Your task to perform on an android device: Go to sound settings Image 0: 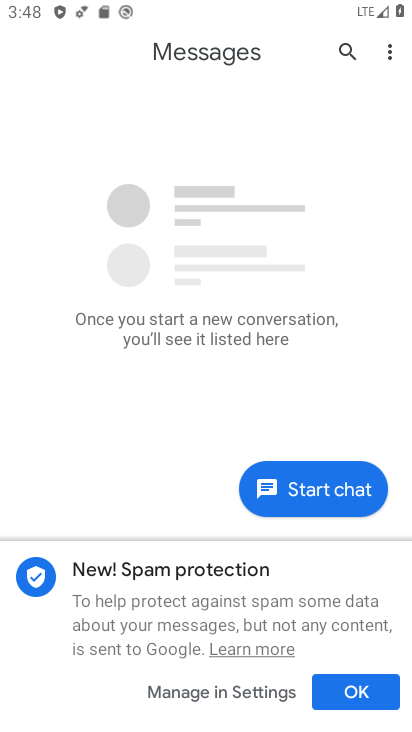
Step 0: press home button
Your task to perform on an android device: Go to sound settings Image 1: 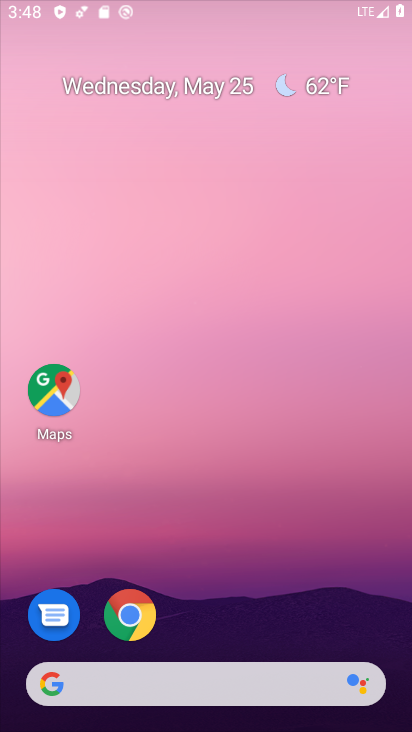
Step 1: drag from (275, 410) to (190, 1)
Your task to perform on an android device: Go to sound settings Image 2: 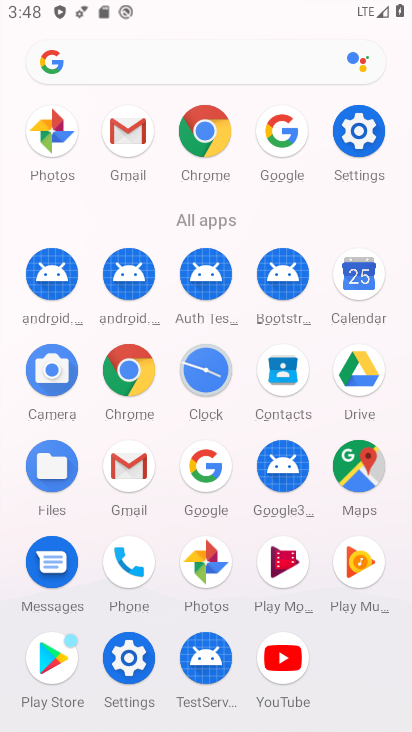
Step 2: click (365, 141)
Your task to perform on an android device: Go to sound settings Image 3: 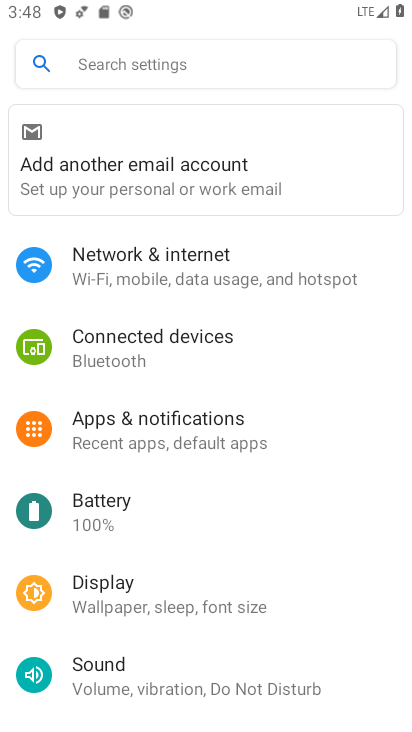
Step 3: click (196, 657)
Your task to perform on an android device: Go to sound settings Image 4: 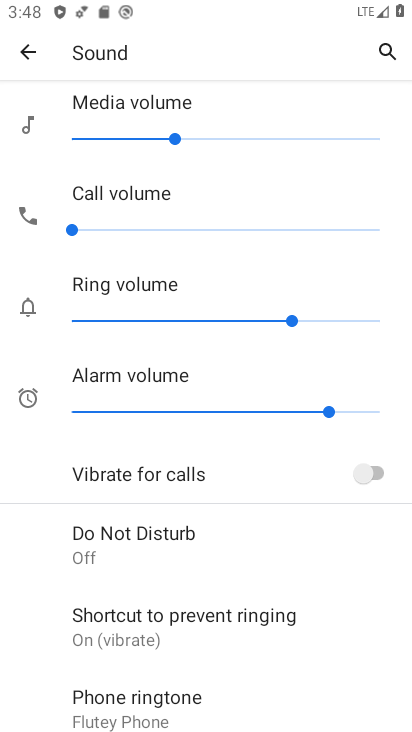
Step 4: task complete